Your task to perform on an android device: turn on priority inbox in the gmail app Image 0: 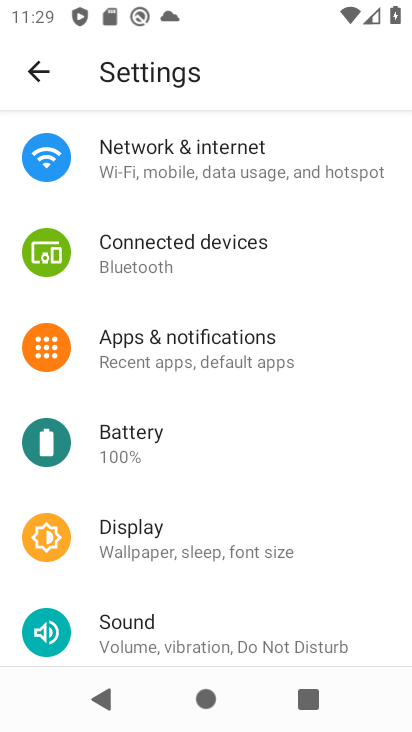
Step 0: press home button
Your task to perform on an android device: turn on priority inbox in the gmail app Image 1: 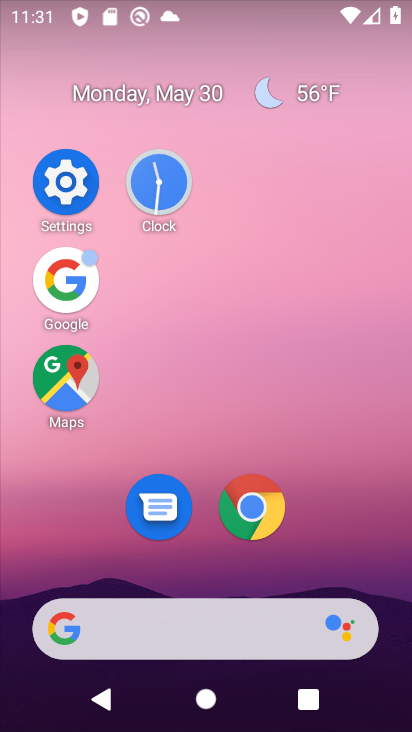
Step 1: drag from (287, 571) to (202, 2)
Your task to perform on an android device: turn on priority inbox in the gmail app Image 2: 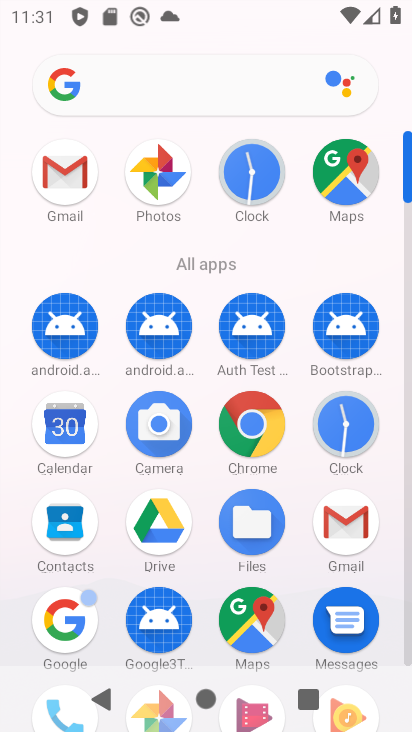
Step 2: drag from (62, 181) to (156, 276)
Your task to perform on an android device: turn on priority inbox in the gmail app Image 3: 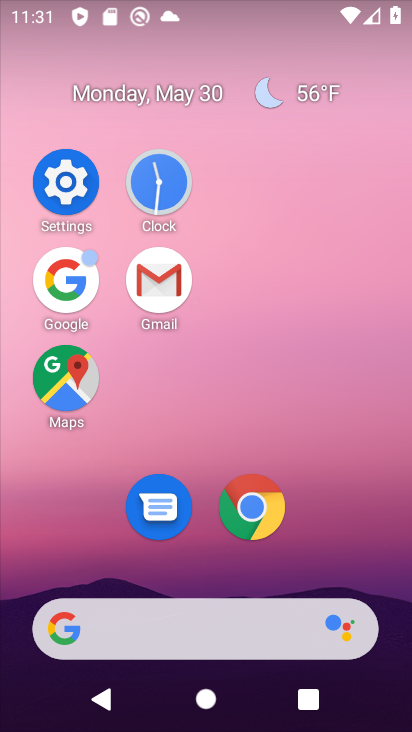
Step 3: click (171, 281)
Your task to perform on an android device: turn on priority inbox in the gmail app Image 4: 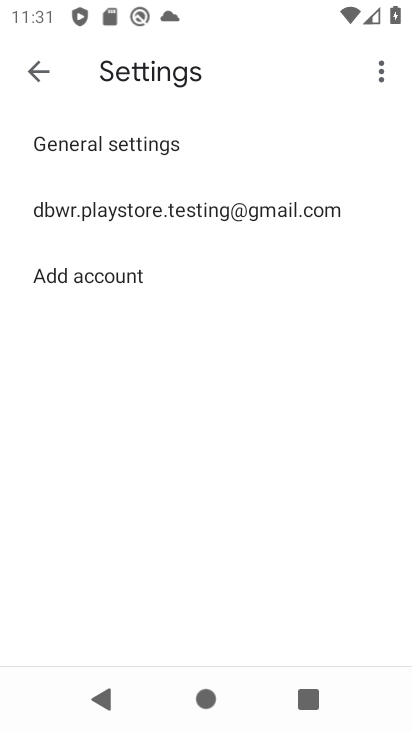
Step 4: click (38, 59)
Your task to perform on an android device: turn on priority inbox in the gmail app Image 5: 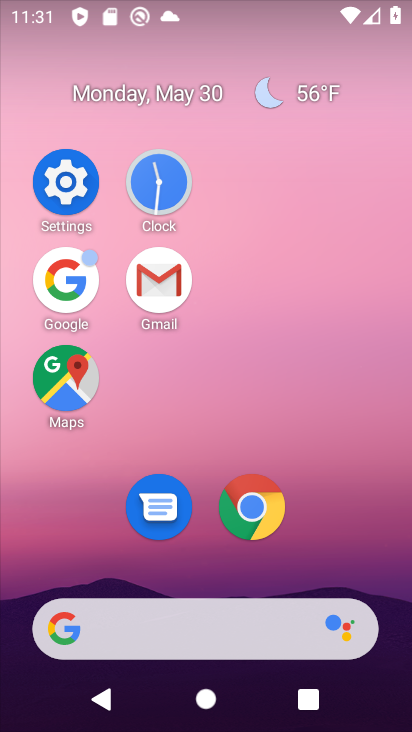
Step 5: click (165, 291)
Your task to perform on an android device: turn on priority inbox in the gmail app Image 6: 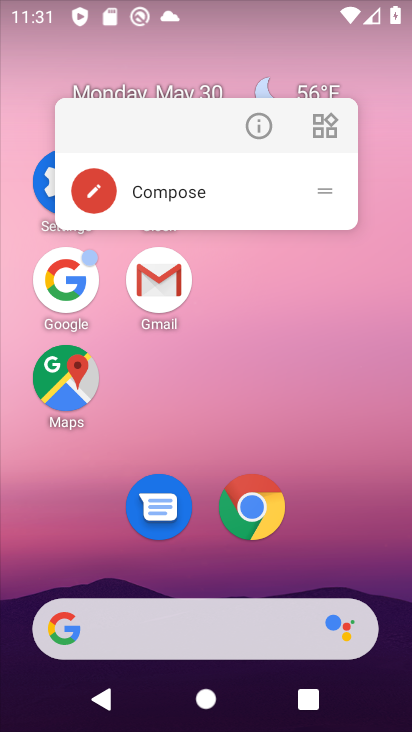
Step 6: click (169, 300)
Your task to perform on an android device: turn on priority inbox in the gmail app Image 7: 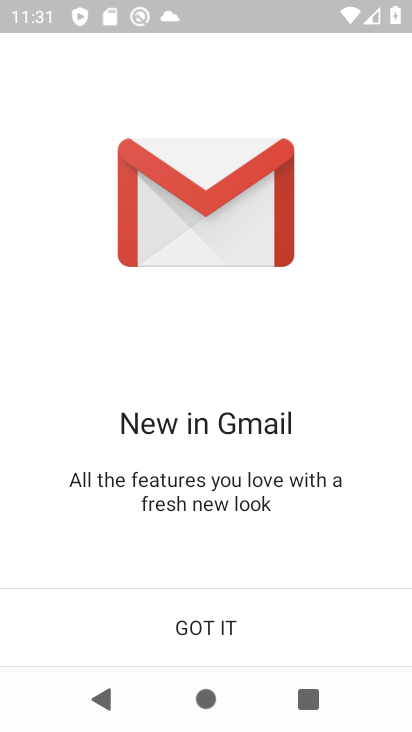
Step 7: click (231, 648)
Your task to perform on an android device: turn on priority inbox in the gmail app Image 8: 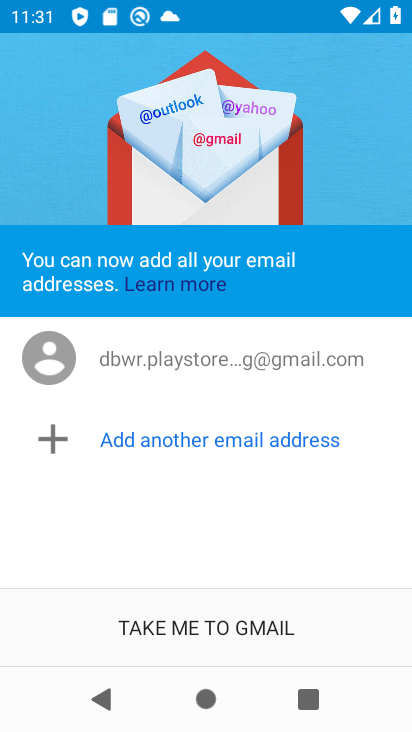
Step 8: click (231, 648)
Your task to perform on an android device: turn on priority inbox in the gmail app Image 9: 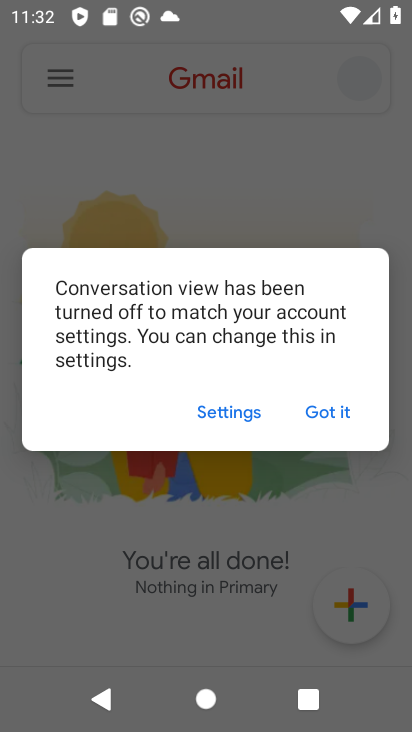
Step 9: click (328, 408)
Your task to perform on an android device: turn on priority inbox in the gmail app Image 10: 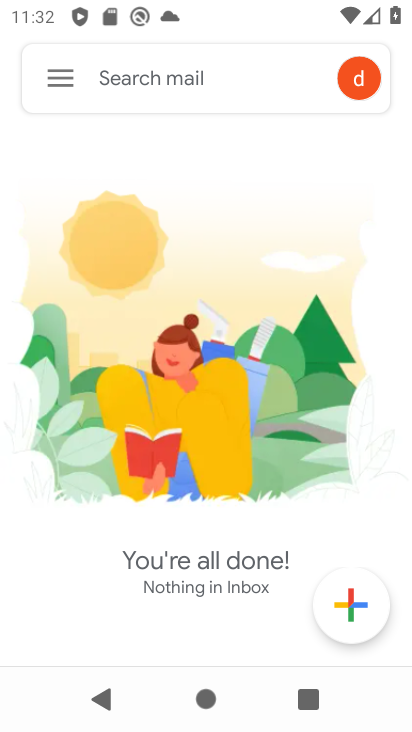
Step 10: click (62, 99)
Your task to perform on an android device: turn on priority inbox in the gmail app Image 11: 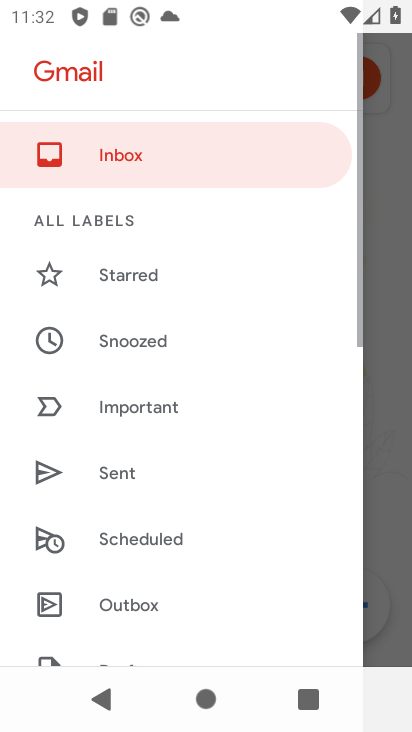
Step 11: drag from (209, 547) to (234, 246)
Your task to perform on an android device: turn on priority inbox in the gmail app Image 12: 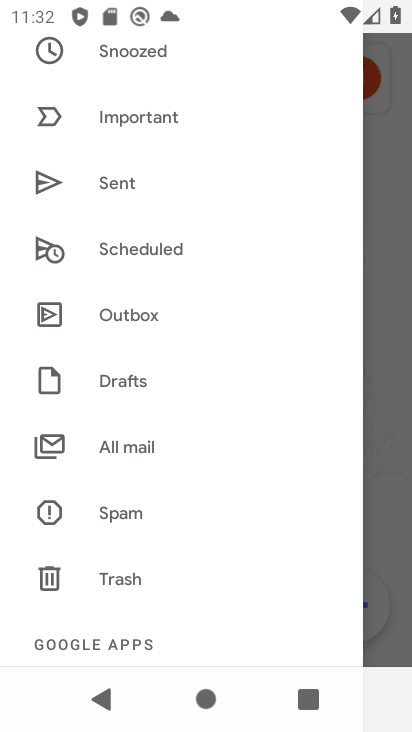
Step 12: drag from (152, 558) to (201, 222)
Your task to perform on an android device: turn on priority inbox in the gmail app Image 13: 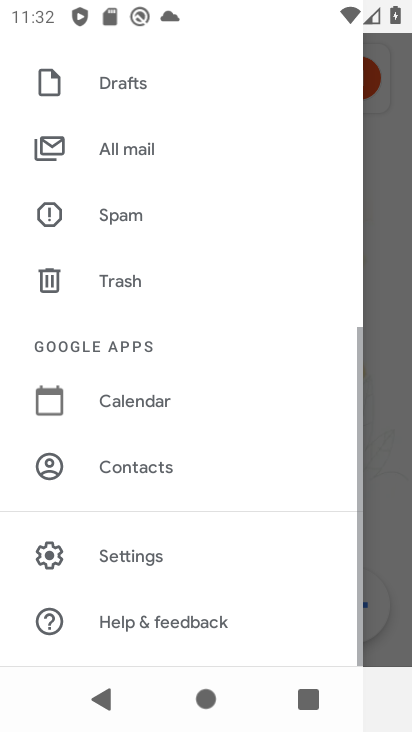
Step 13: click (222, 546)
Your task to perform on an android device: turn on priority inbox in the gmail app Image 14: 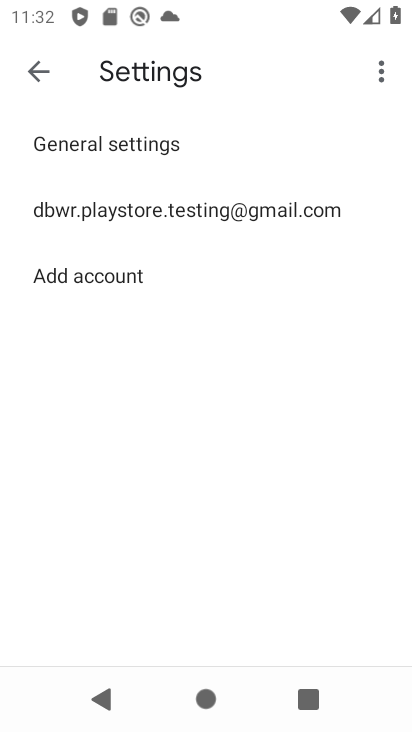
Step 14: click (198, 209)
Your task to perform on an android device: turn on priority inbox in the gmail app Image 15: 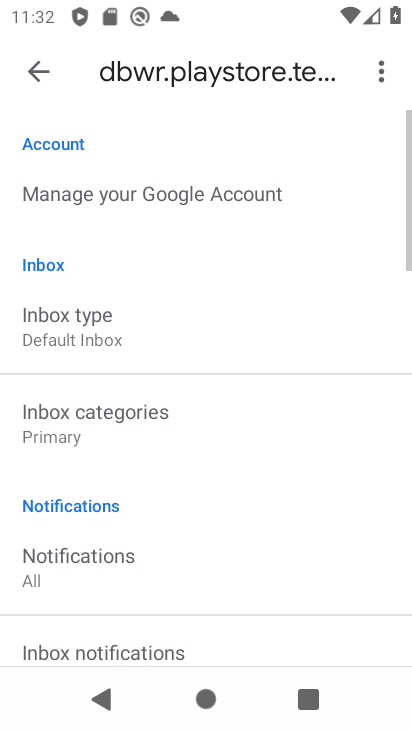
Step 15: click (116, 329)
Your task to perform on an android device: turn on priority inbox in the gmail app Image 16: 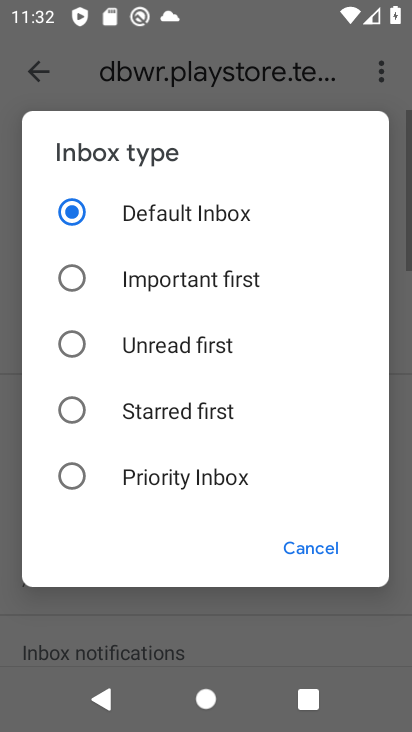
Step 16: click (171, 478)
Your task to perform on an android device: turn on priority inbox in the gmail app Image 17: 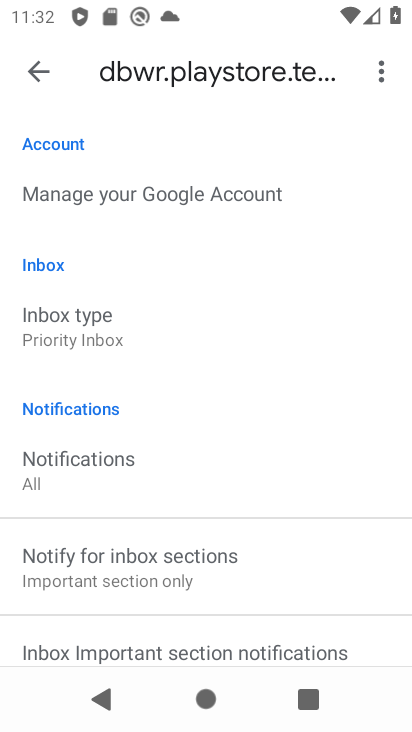
Step 17: task complete